Your task to perform on an android device: show emergency info Image 0: 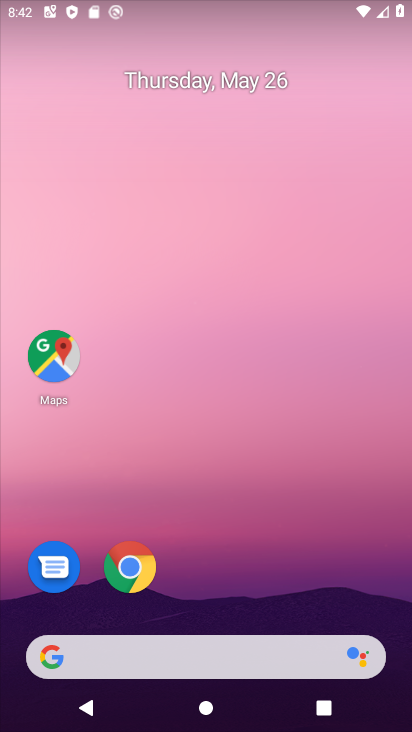
Step 0: drag from (197, 652) to (336, 14)
Your task to perform on an android device: show emergency info Image 1: 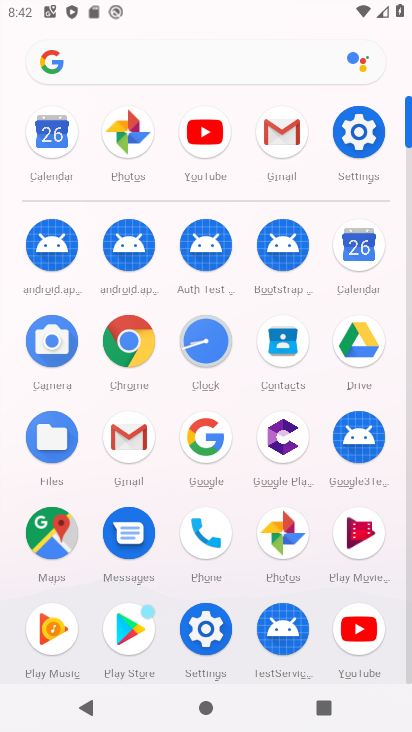
Step 1: click (357, 137)
Your task to perform on an android device: show emergency info Image 2: 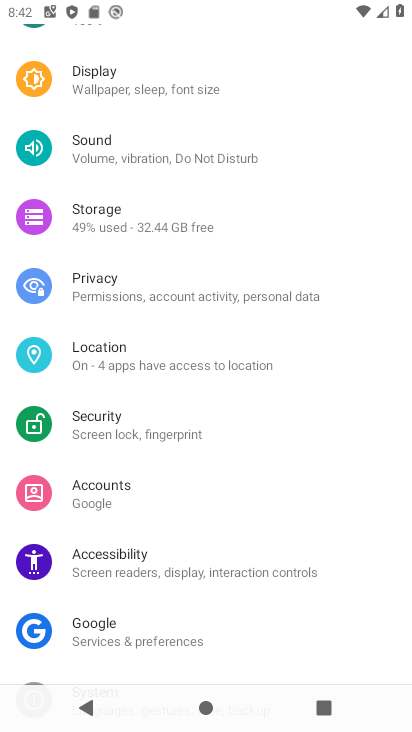
Step 2: drag from (212, 669) to (326, 72)
Your task to perform on an android device: show emergency info Image 3: 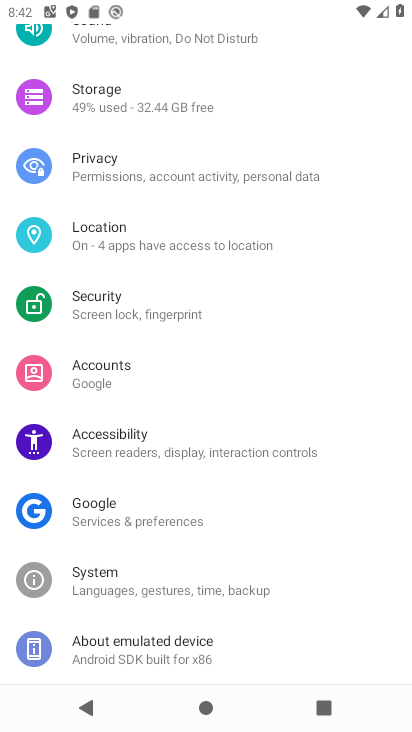
Step 3: click (171, 643)
Your task to perform on an android device: show emergency info Image 4: 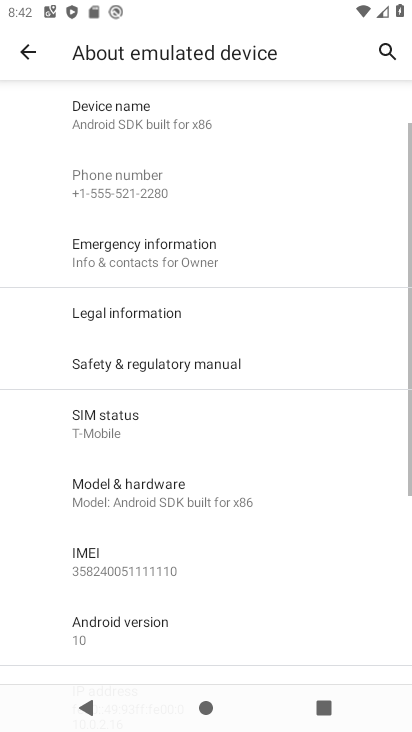
Step 4: click (161, 251)
Your task to perform on an android device: show emergency info Image 5: 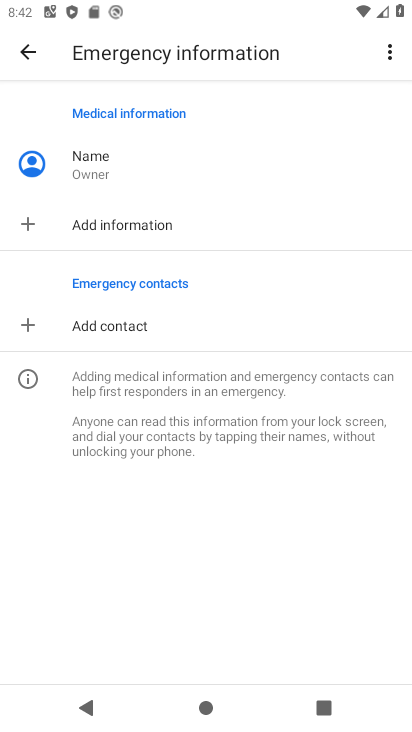
Step 5: task complete